Your task to perform on an android device: set the timer Image 0: 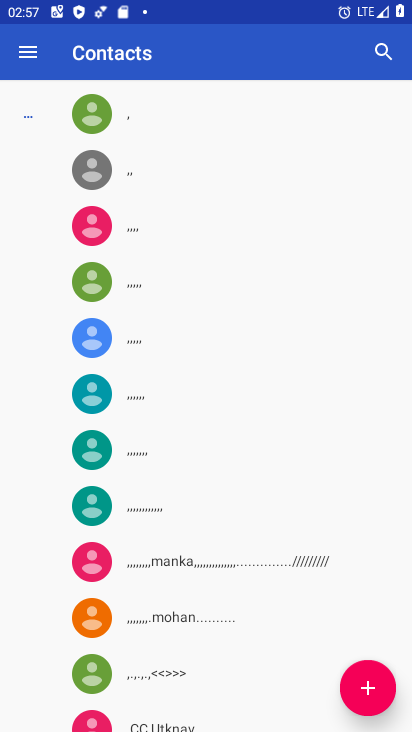
Step 0: drag from (188, 667) to (132, 286)
Your task to perform on an android device: set the timer Image 1: 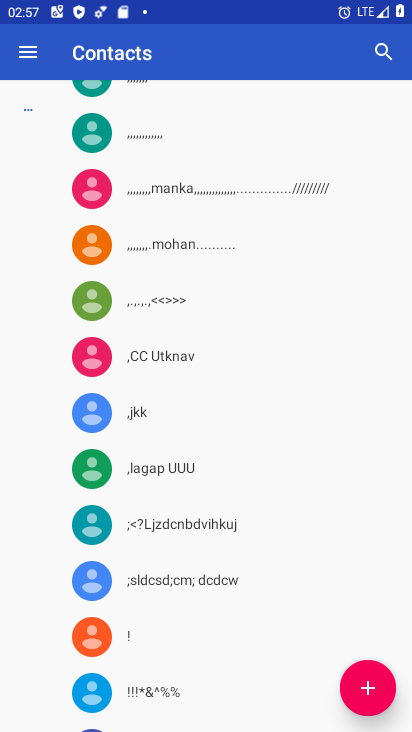
Step 1: press home button
Your task to perform on an android device: set the timer Image 2: 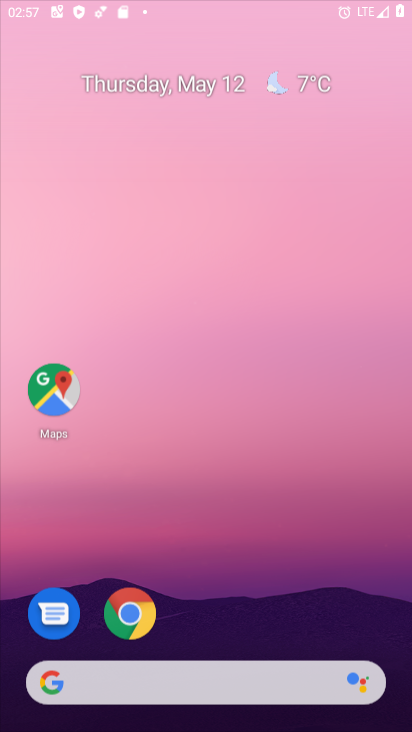
Step 2: press home button
Your task to perform on an android device: set the timer Image 3: 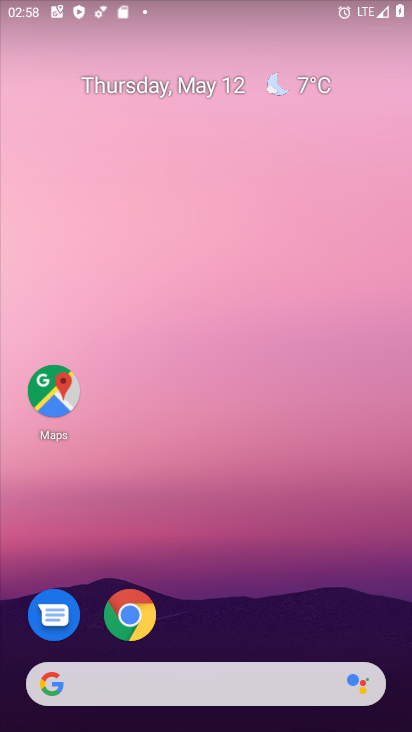
Step 3: drag from (265, 663) to (130, 130)
Your task to perform on an android device: set the timer Image 4: 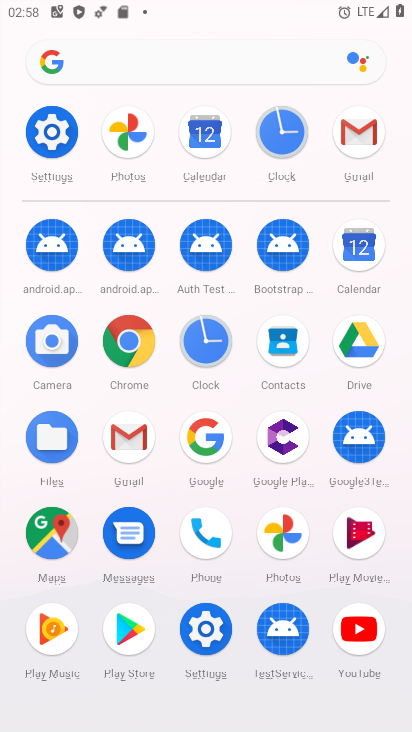
Step 4: click (216, 365)
Your task to perform on an android device: set the timer Image 5: 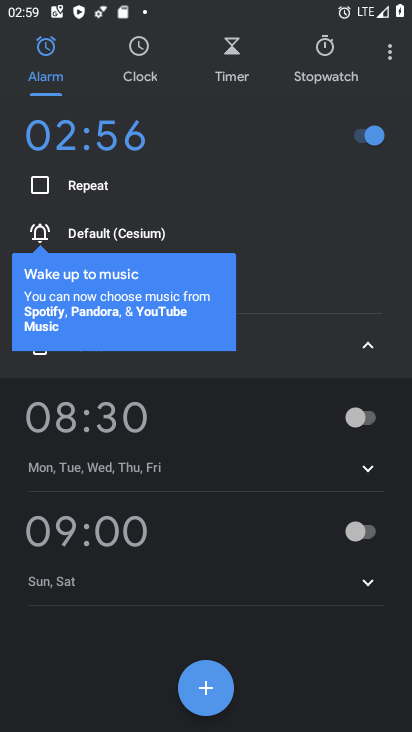
Step 5: click (234, 78)
Your task to perform on an android device: set the timer Image 6: 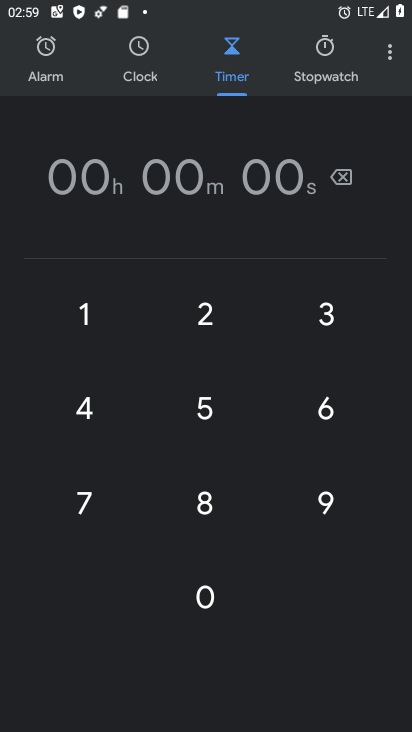
Step 6: click (212, 333)
Your task to perform on an android device: set the timer Image 7: 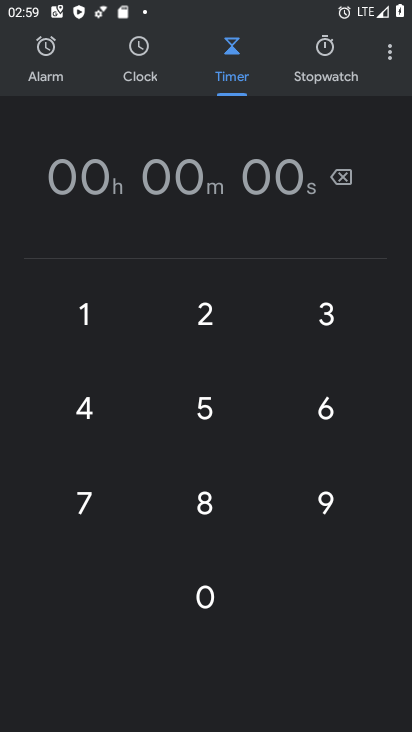
Step 7: click (212, 333)
Your task to perform on an android device: set the timer Image 8: 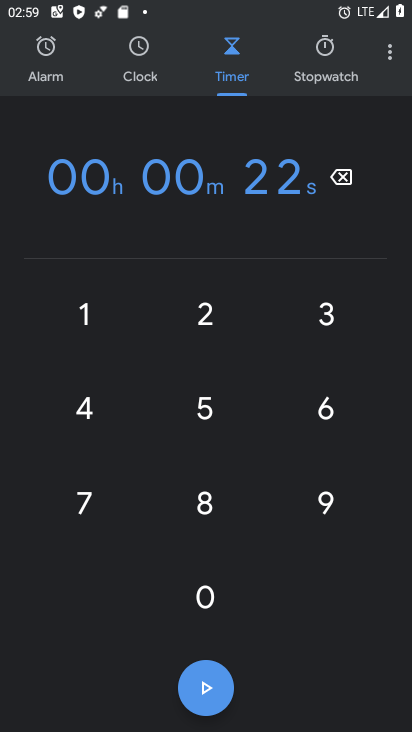
Step 8: click (203, 696)
Your task to perform on an android device: set the timer Image 9: 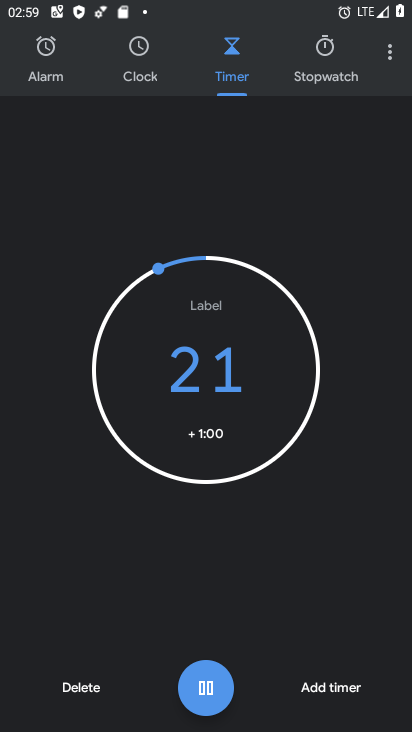
Step 9: task complete